Your task to perform on an android device: Empty the shopping cart on bestbuy. Image 0: 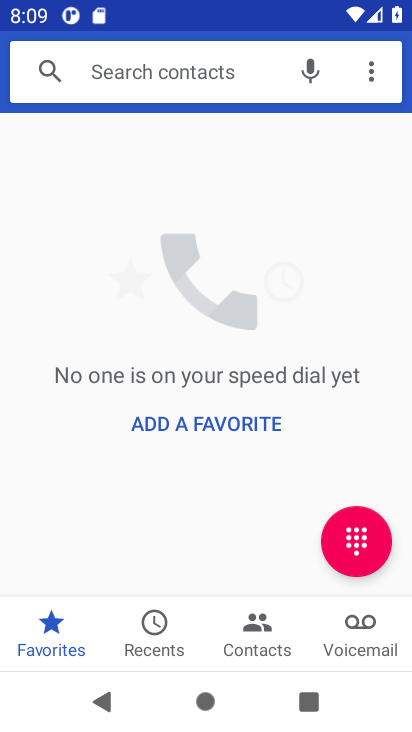
Step 0: press home button
Your task to perform on an android device: Empty the shopping cart on bestbuy. Image 1: 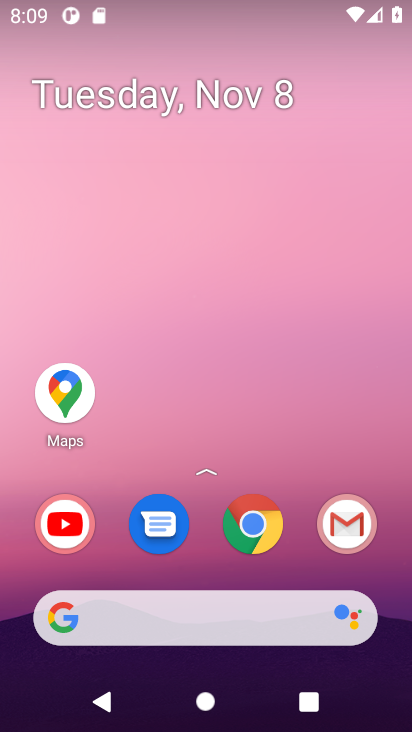
Step 1: click (259, 530)
Your task to perform on an android device: Empty the shopping cart on bestbuy. Image 2: 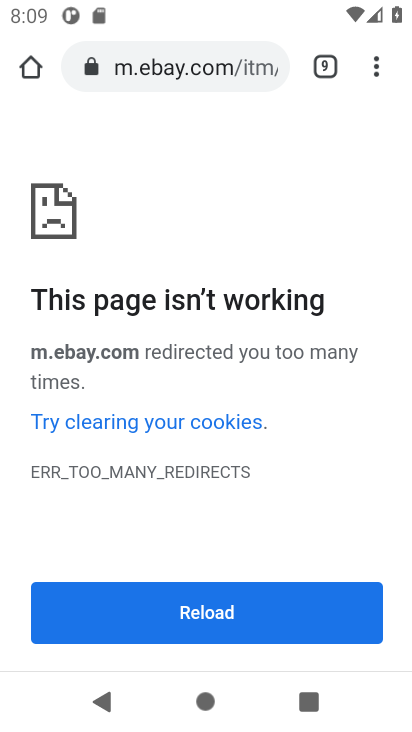
Step 2: click (174, 70)
Your task to perform on an android device: Empty the shopping cart on bestbuy. Image 3: 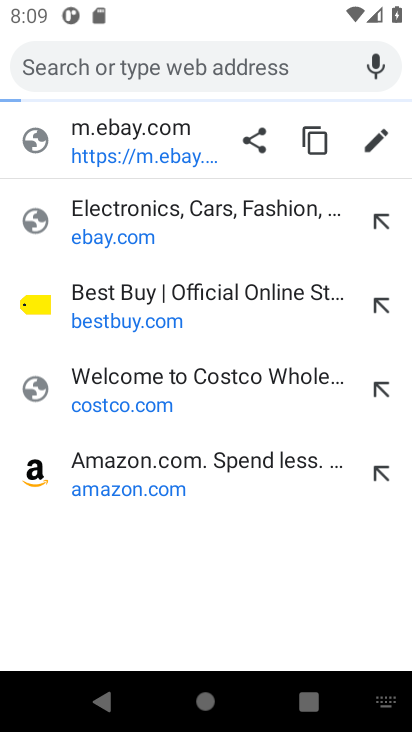
Step 3: click (143, 307)
Your task to perform on an android device: Empty the shopping cart on bestbuy. Image 4: 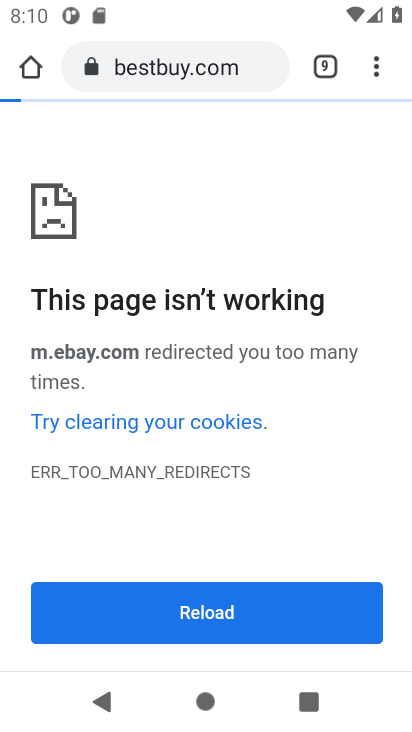
Step 4: click (211, 76)
Your task to perform on an android device: Empty the shopping cart on bestbuy. Image 5: 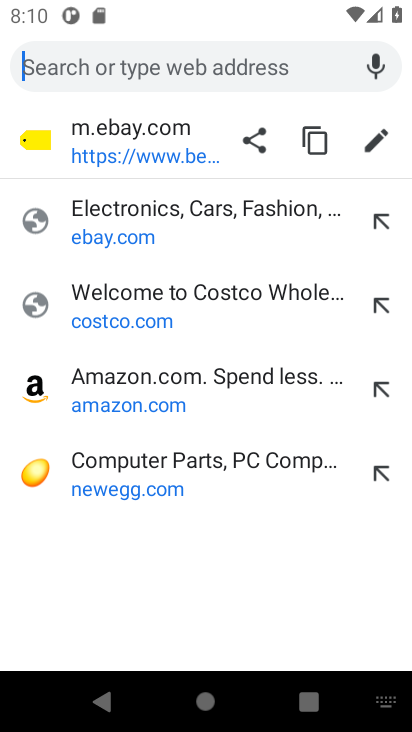
Step 5: click (122, 72)
Your task to perform on an android device: Empty the shopping cart on bestbuy. Image 6: 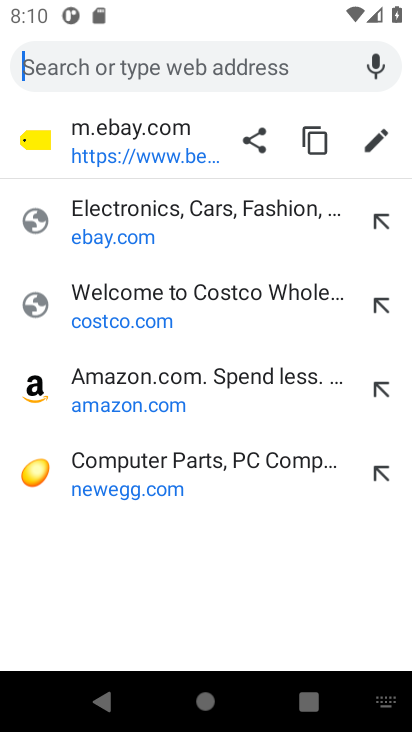
Step 6: type "bestbuy.com"
Your task to perform on an android device: Empty the shopping cart on bestbuy. Image 7: 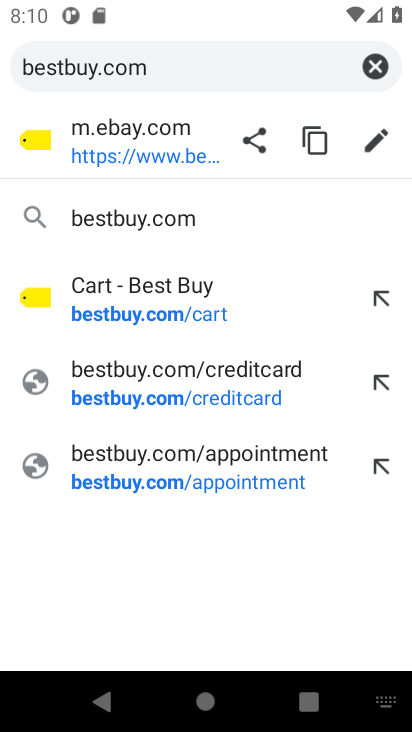
Step 7: click (125, 230)
Your task to perform on an android device: Empty the shopping cart on bestbuy. Image 8: 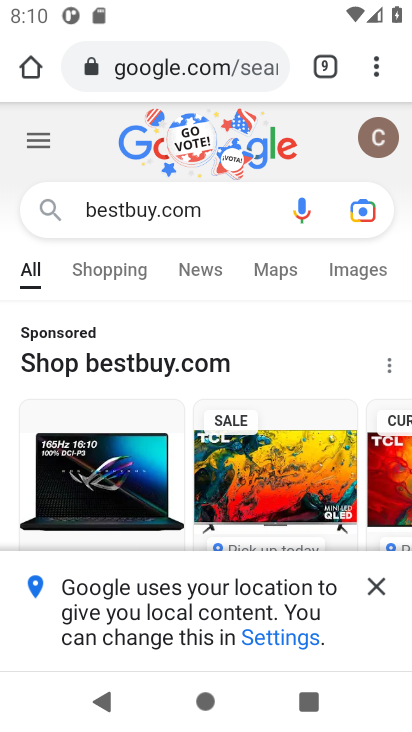
Step 8: drag from (138, 426) to (168, 147)
Your task to perform on an android device: Empty the shopping cart on bestbuy. Image 9: 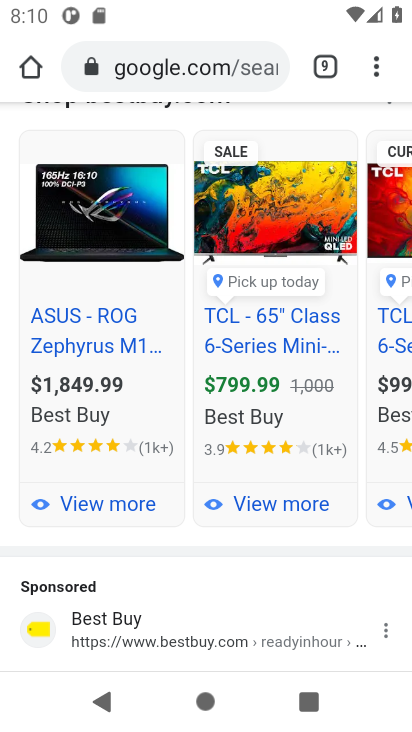
Step 9: drag from (163, 472) to (162, 79)
Your task to perform on an android device: Empty the shopping cart on bestbuy. Image 10: 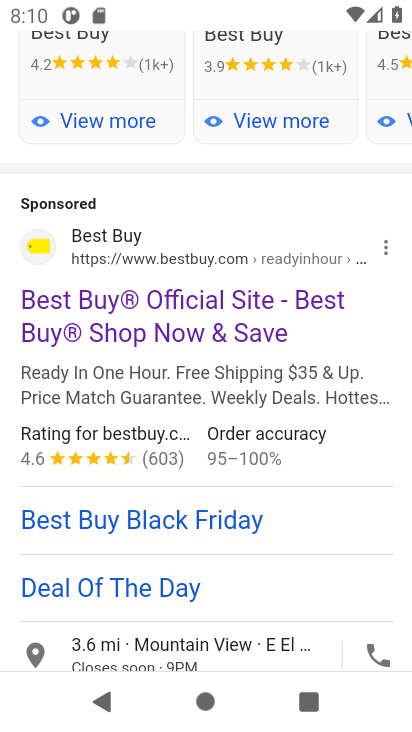
Step 10: drag from (160, 394) to (192, 142)
Your task to perform on an android device: Empty the shopping cart on bestbuy. Image 11: 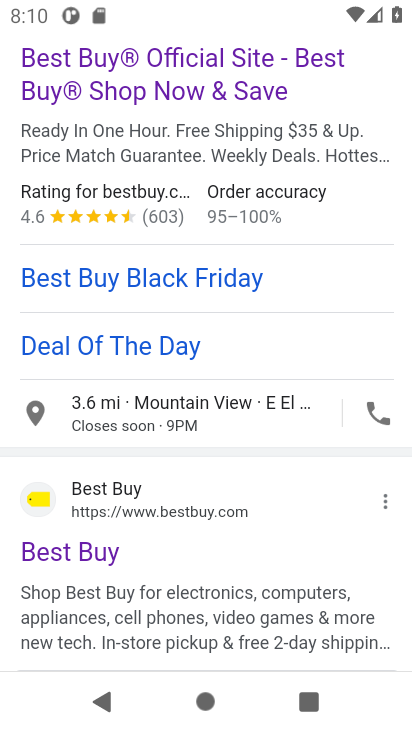
Step 11: click (54, 546)
Your task to perform on an android device: Empty the shopping cart on bestbuy. Image 12: 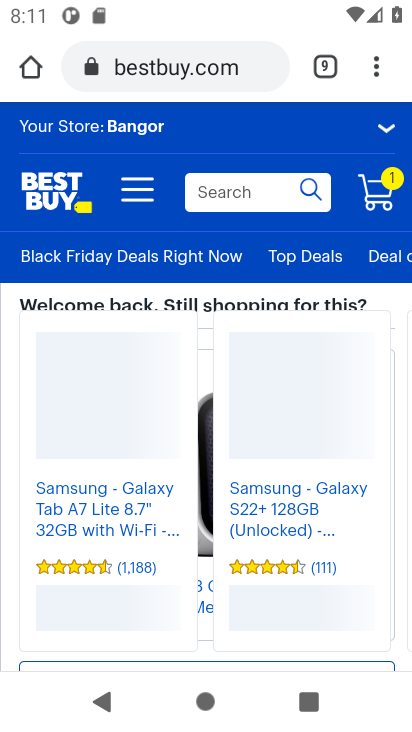
Step 12: click (371, 197)
Your task to perform on an android device: Empty the shopping cart on bestbuy. Image 13: 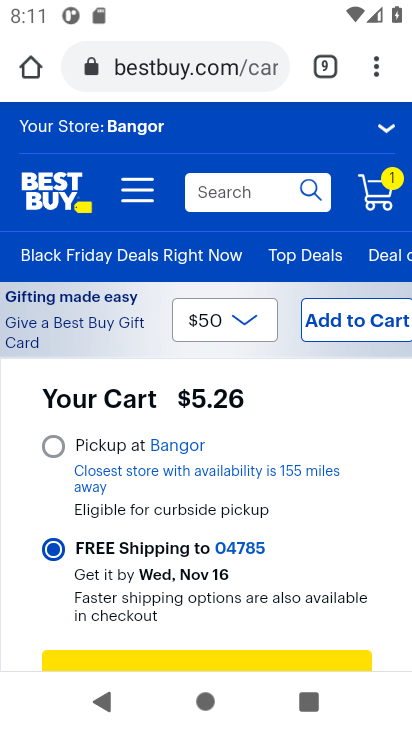
Step 13: drag from (162, 496) to (195, 208)
Your task to perform on an android device: Empty the shopping cart on bestbuy. Image 14: 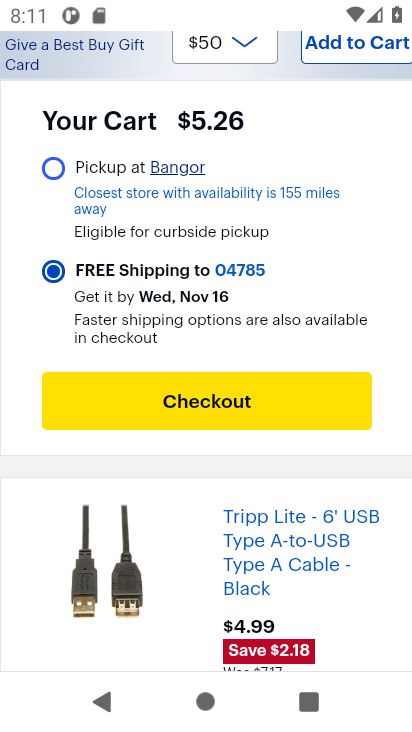
Step 14: drag from (153, 493) to (183, 210)
Your task to perform on an android device: Empty the shopping cart on bestbuy. Image 15: 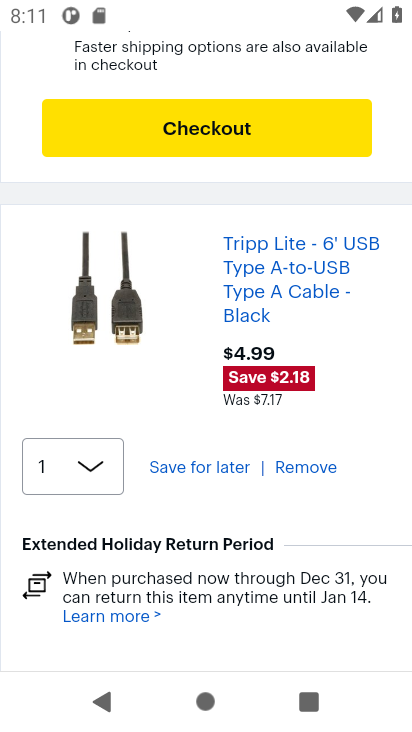
Step 15: click (316, 466)
Your task to perform on an android device: Empty the shopping cart on bestbuy. Image 16: 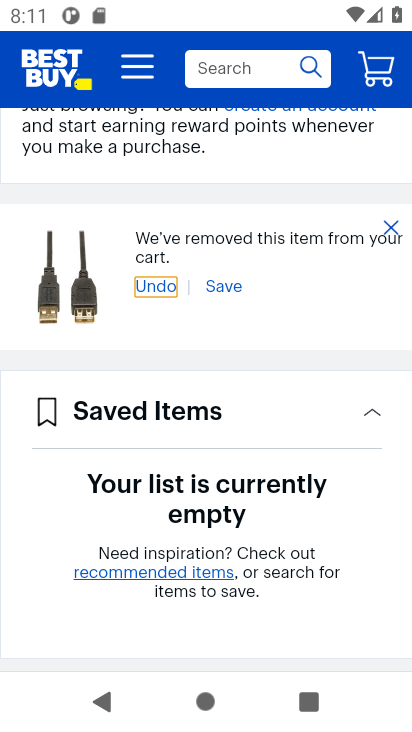
Step 16: task complete